Your task to perform on an android device: change the clock display to digital Image 0: 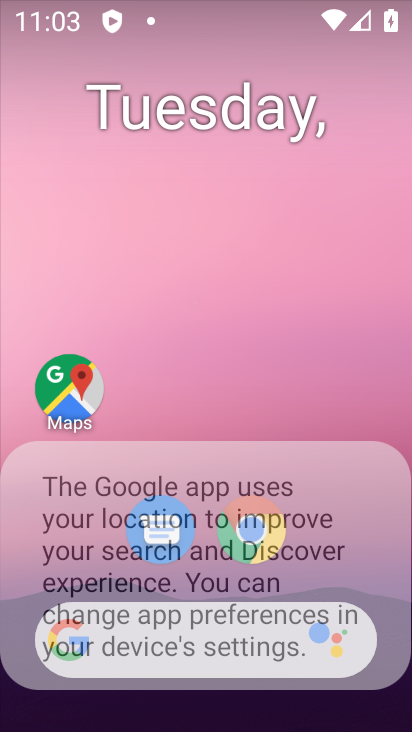
Step 0: drag from (349, 574) to (163, 182)
Your task to perform on an android device: change the clock display to digital Image 1: 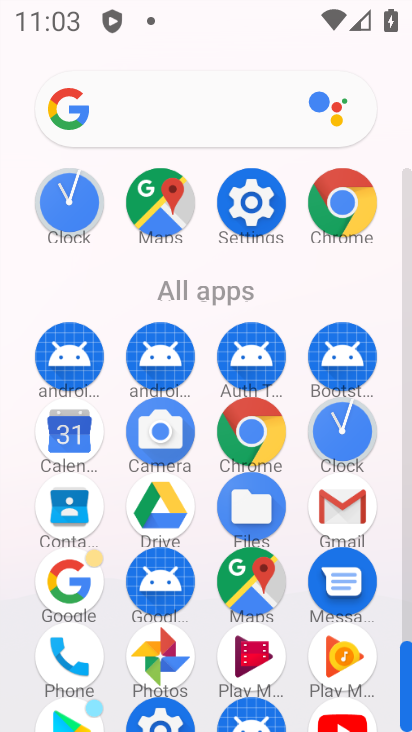
Step 1: click (348, 437)
Your task to perform on an android device: change the clock display to digital Image 2: 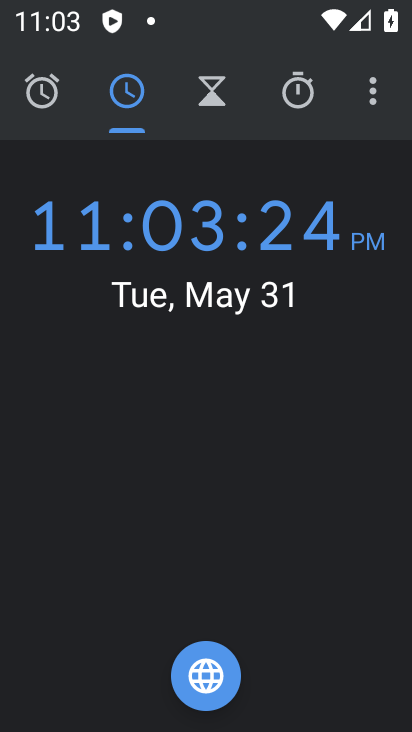
Step 2: click (372, 100)
Your task to perform on an android device: change the clock display to digital Image 3: 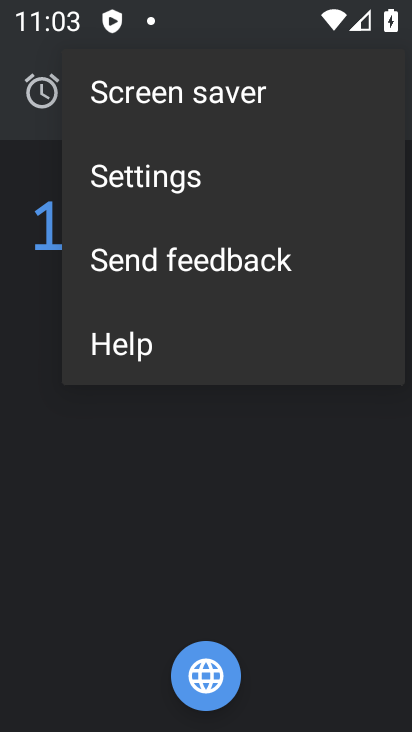
Step 3: click (180, 178)
Your task to perform on an android device: change the clock display to digital Image 4: 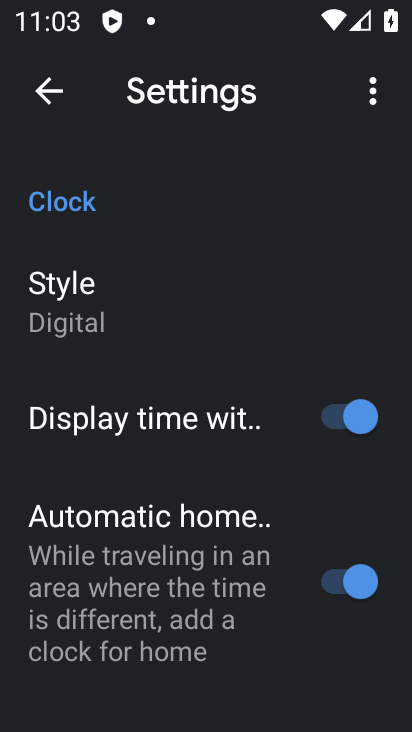
Step 4: task complete